Your task to perform on an android device: Search for razer huntsman on amazon, select the first entry, and add it to the cart. Image 0: 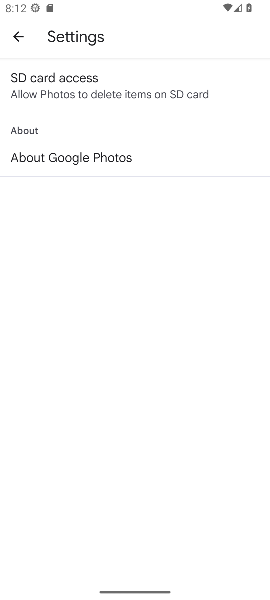
Step 0: press home button
Your task to perform on an android device: Search for razer huntsman on amazon, select the first entry, and add it to the cart. Image 1: 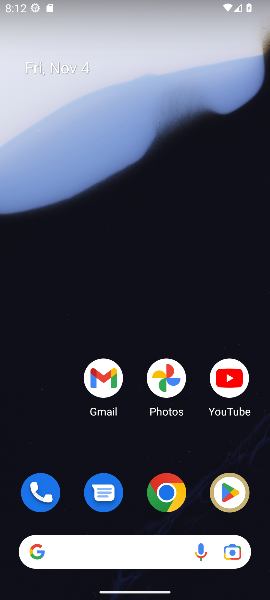
Step 1: drag from (129, 462) to (238, 0)
Your task to perform on an android device: Search for razer huntsman on amazon, select the first entry, and add it to the cart. Image 2: 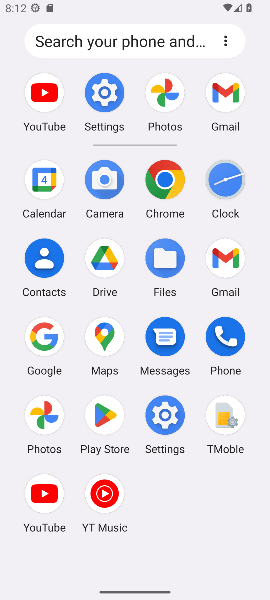
Step 2: click (164, 183)
Your task to perform on an android device: Search for razer huntsman on amazon, select the first entry, and add it to the cart. Image 3: 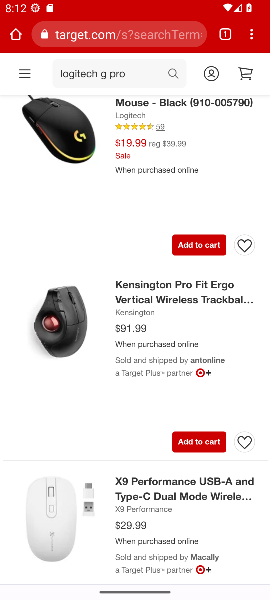
Step 3: click (151, 37)
Your task to perform on an android device: Search for razer huntsman on amazon, select the first entry, and add it to the cart. Image 4: 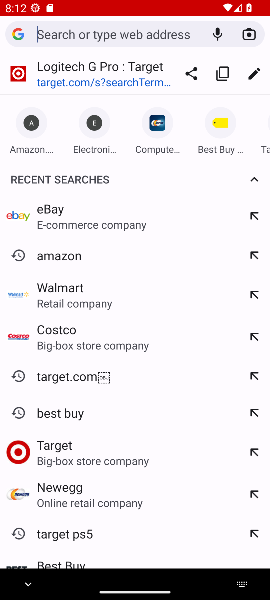
Step 4: type "amazon.com"
Your task to perform on an android device: Search for razer huntsman on amazon, select the first entry, and add it to the cart. Image 5: 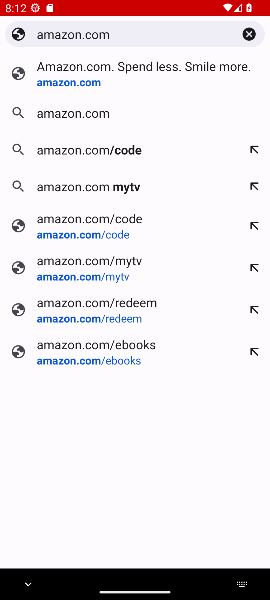
Step 5: press enter
Your task to perform on an android device: Search for razer huntsman on amazon, select the first entry, and add it to the cart. Image 6: 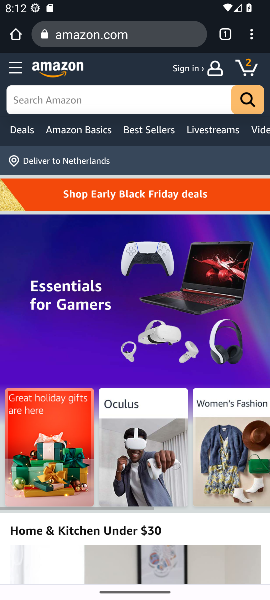
Step 6: click (170, 102)
Your task to perform on an android device: Search for razer huntsman on amazon, select the first entry, and add it to the cart. Image 7: 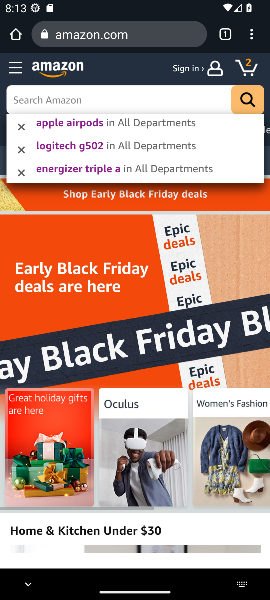
Step 7: type "razer huntsman"
Your task to perform on an android device: Search for razer huntsman on amazon, select the first entry, and add it to the cart. Image 8: 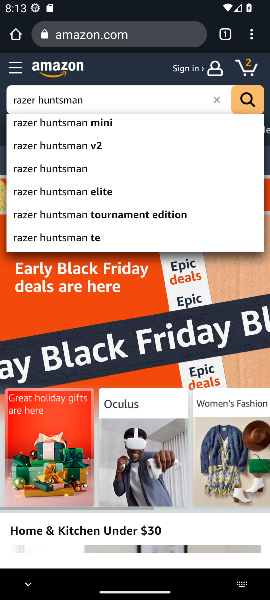
Step 8: press enter
Your task to perform on an android device: Search for razer huntsman on amazon, select the first entry, and add it to the cart. Image 9: 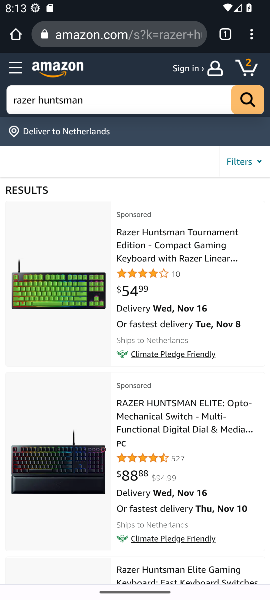
Step 9: drag from (178, 496) to (187, 242)
Your task to perform on an android device: Search for razer huntsman on amazon, select the first entry, and add it to the cart. Image 10: 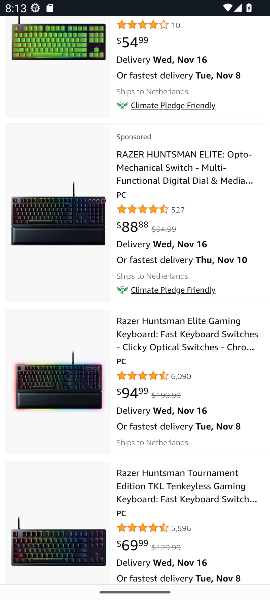
Step 10: click (182, 337)
Your task to perform on an android device: Search for razer huntsman on amazon, select the first entry, and add it to the cart. Image 11: 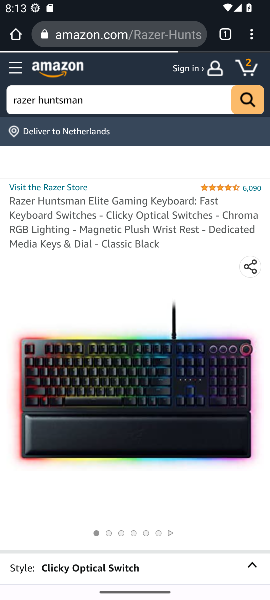
Step 11: drag from (160, 445) to (180, 101)
Your task to perform on an android device: Search for razer huntsman on amazon, select the first entry, and add it to the cart. Image 12: 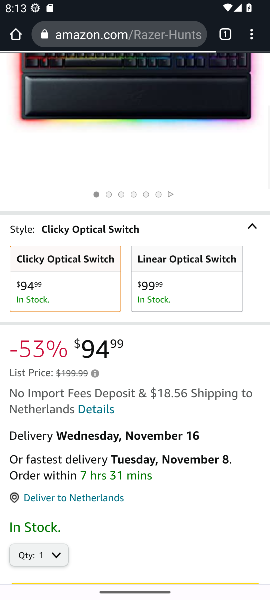
Step 12: drag from (127, 435) to (184, 158)
Your task to perform on an android device: Search for razer huntsman on amazon, select the first entry, and add it to the cart. Image 13: 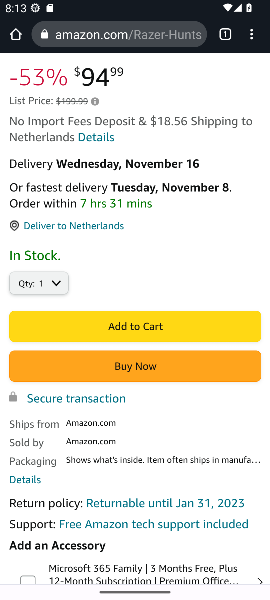
Step 13: click (124, 323)
Your task to perform on an android device: Search for razer huntsman on amazon, select the first entry, and add it to the cart. Image 14: 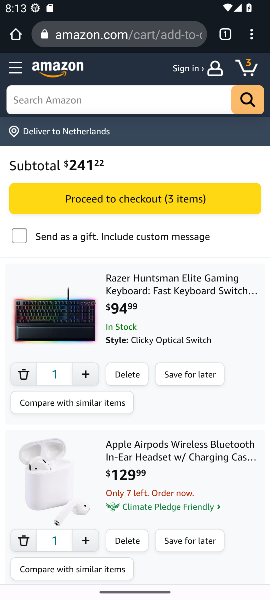
Step 14: task complete